Your task to perform on an android device: Add "razer blackwidow" to the cart on amazon.com, then select checkout. Image 0: 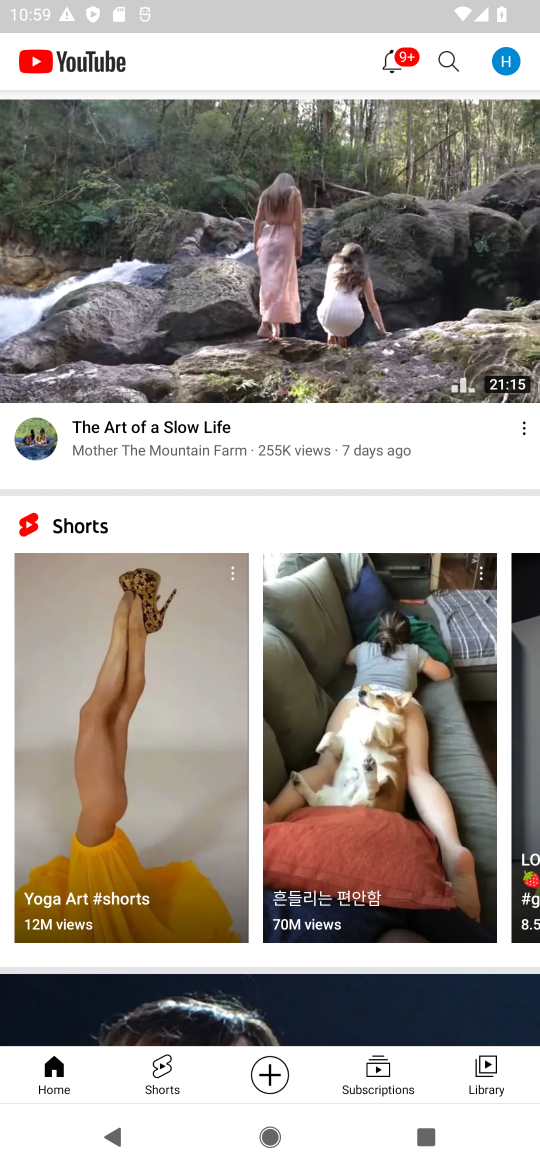
Step 0: press home button
Your task to perform on an android device: Add "razer blackwidow" to the cart on amazon.com, then select checkout. Image 1: 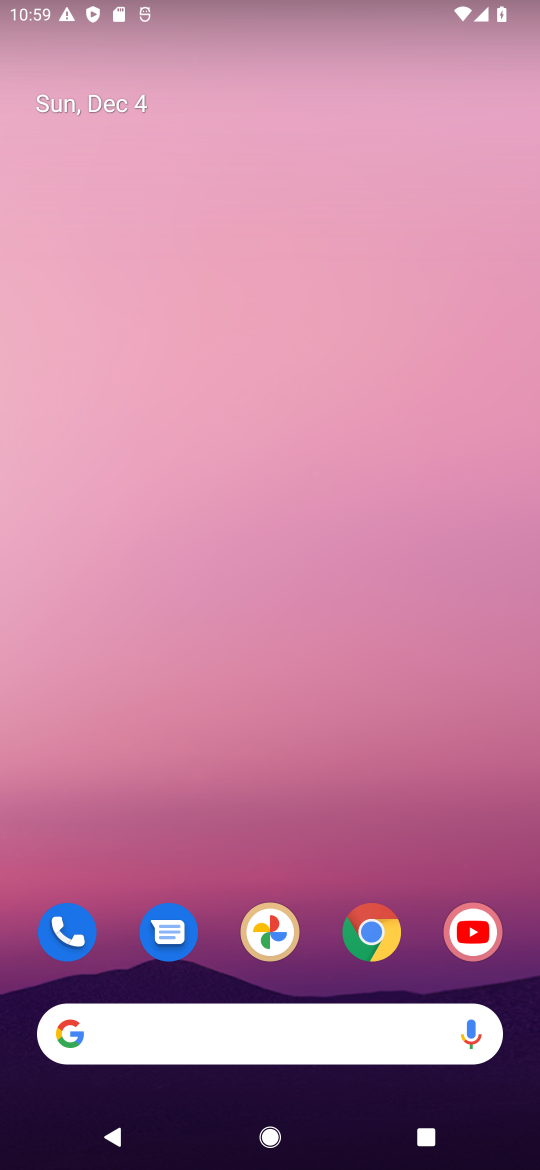
Step 1: click (361, 936)
Your task to perform on an android device: Add "razer blackwidow" to the cart on amazon.com, then select checkout. Image 2: 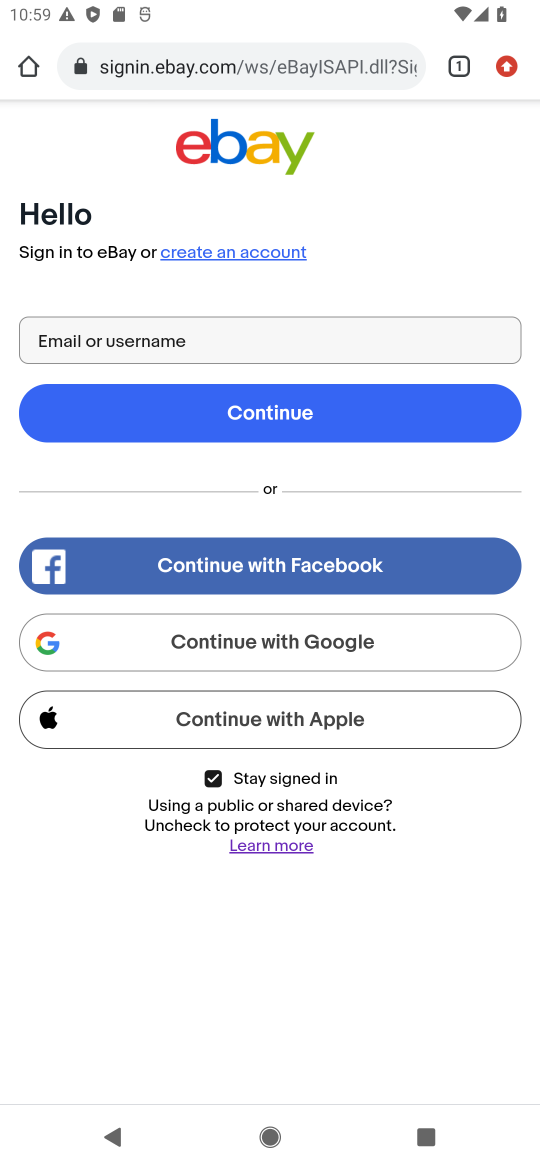
Step 2: click (165, 56)
Your task to perform on an android device: Add "razer blackwidow" to the cart on amazon.com, then select checkout. Image 3: 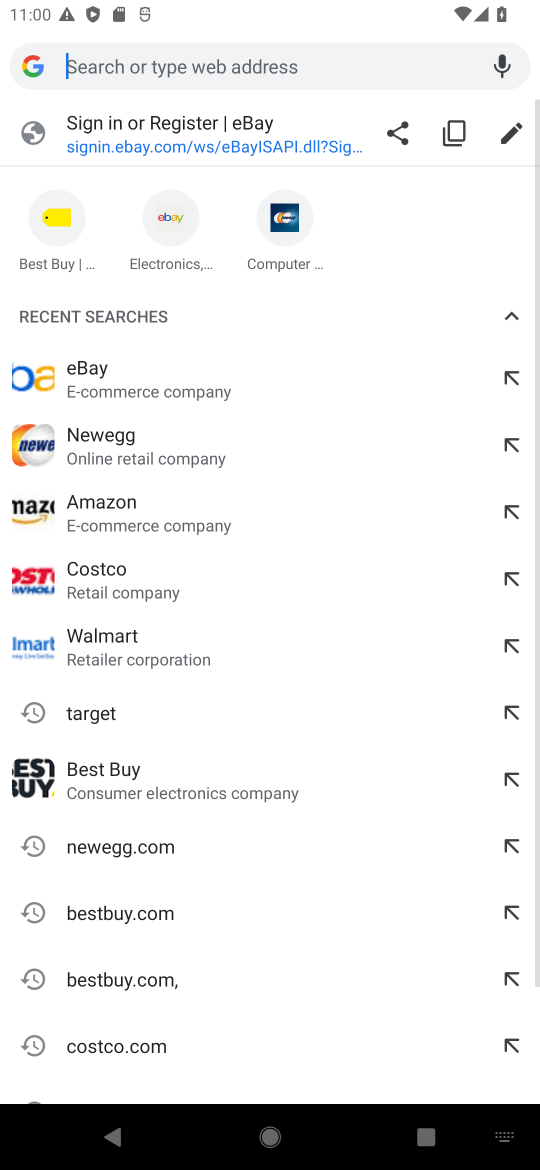
Step 3: click (148, 516)
Your task to perform on an android device: Add "razer blackwidow" to the cart on amazon.com, then select checkout. Image 4: 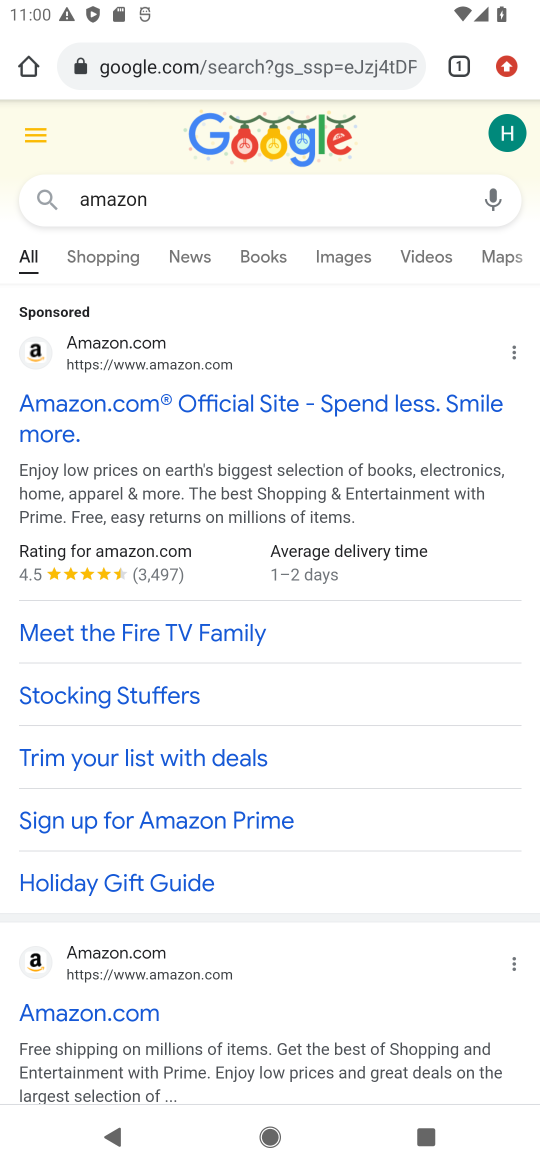
Step 4: click (182, 403)
Your task to perform on an android device: Add "razer blackwidow" to the cart on amazon.com, then select checkout. Image 5: 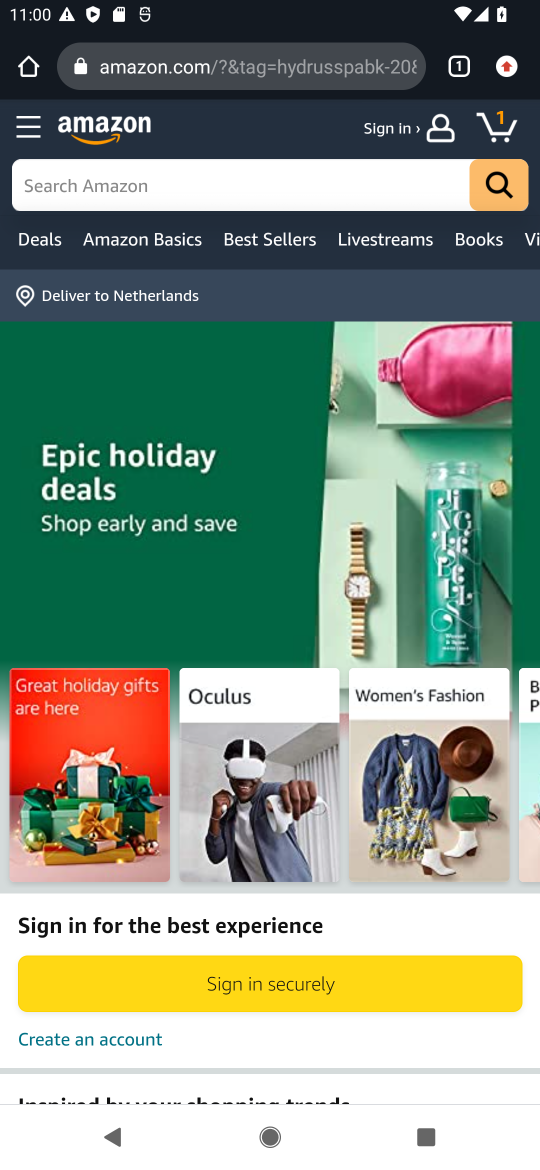
Step 5: click (315, 185)
Your task to perform on an android device: Add "razer blackwidow" to the cart on amazon.com, then select checkout. Image 6: 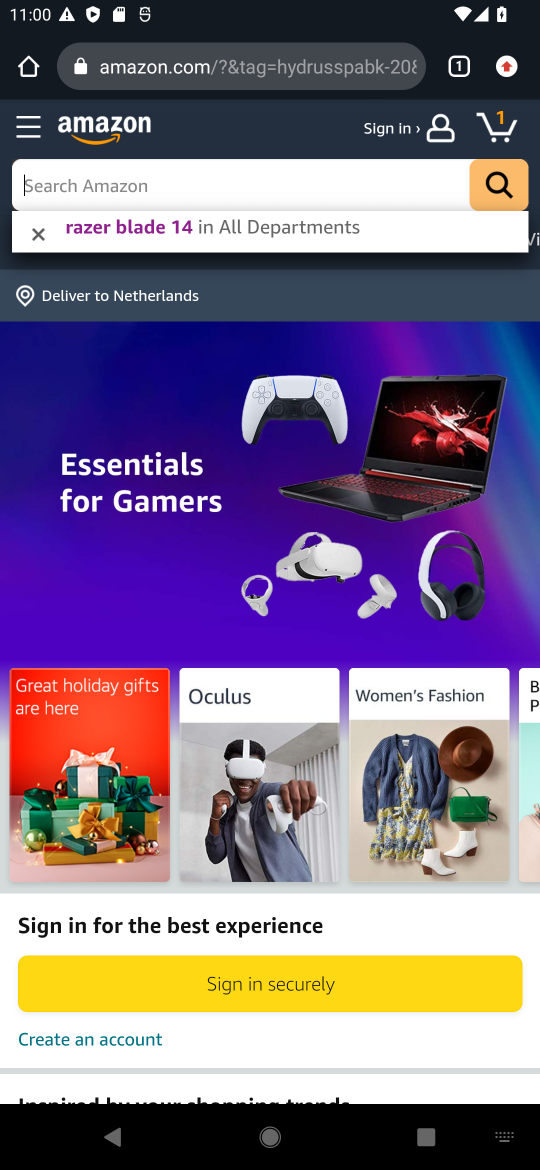
Step 6: type "razer blackwidow"
Your task to perform on an android device: Add "razer blackwidow" to the cart on amazon.com, then select checkout. Image 7: 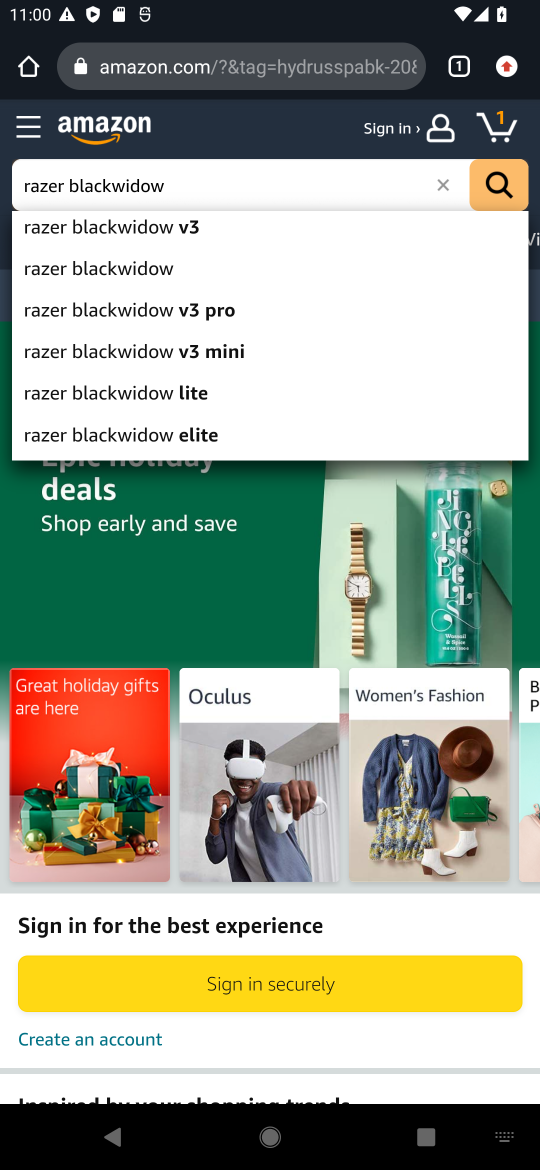
Step 7: click (197, 236)
Your task to perform on an android device: Add "razer blackwidow" to the cart on amazon.com, then select checkout. Image 8: 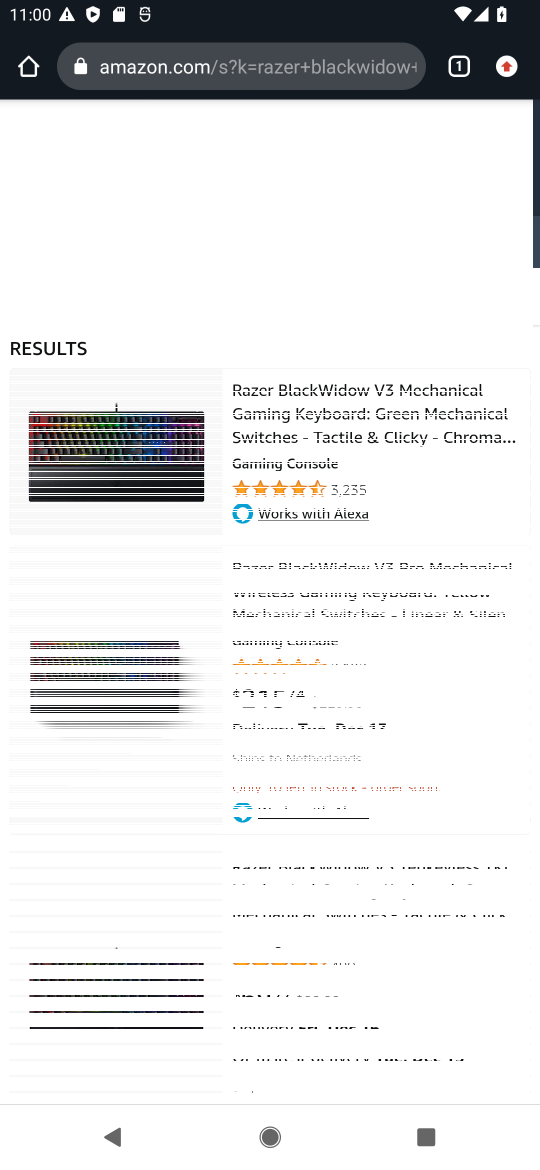
Step 8: click (142, 465)
Your task to perform on an android device: Add "razer blackwidow" to the cart on amazon.com, then select checkout. Image 9: 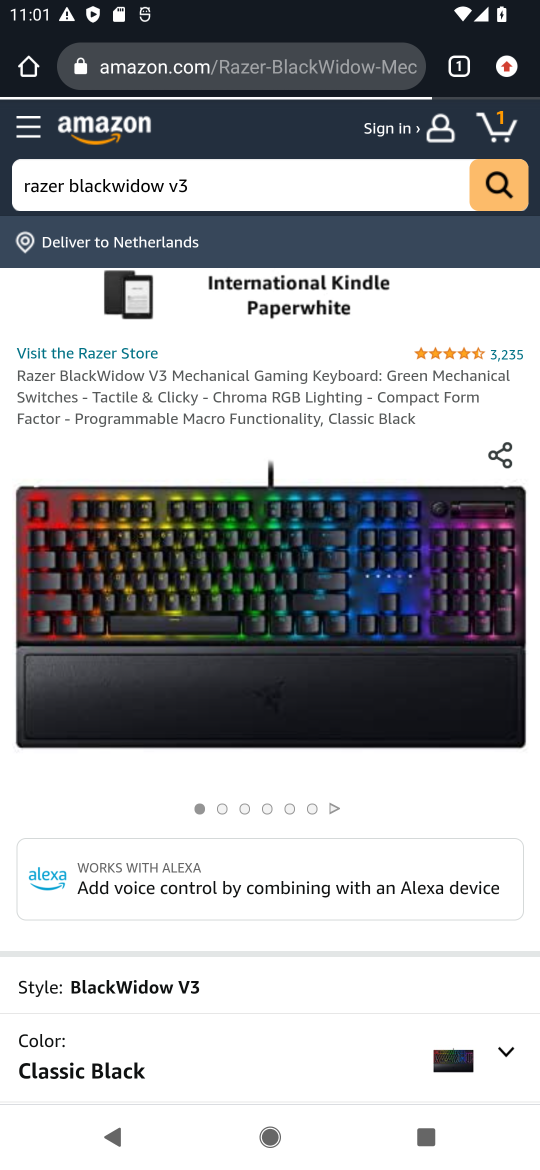
Step 9: drag from (431, 911) to (413, 142)
Your task to perform on an android device: Add "razer blackwidow" to the cart on amazon.com, then select checkout. Image 10: 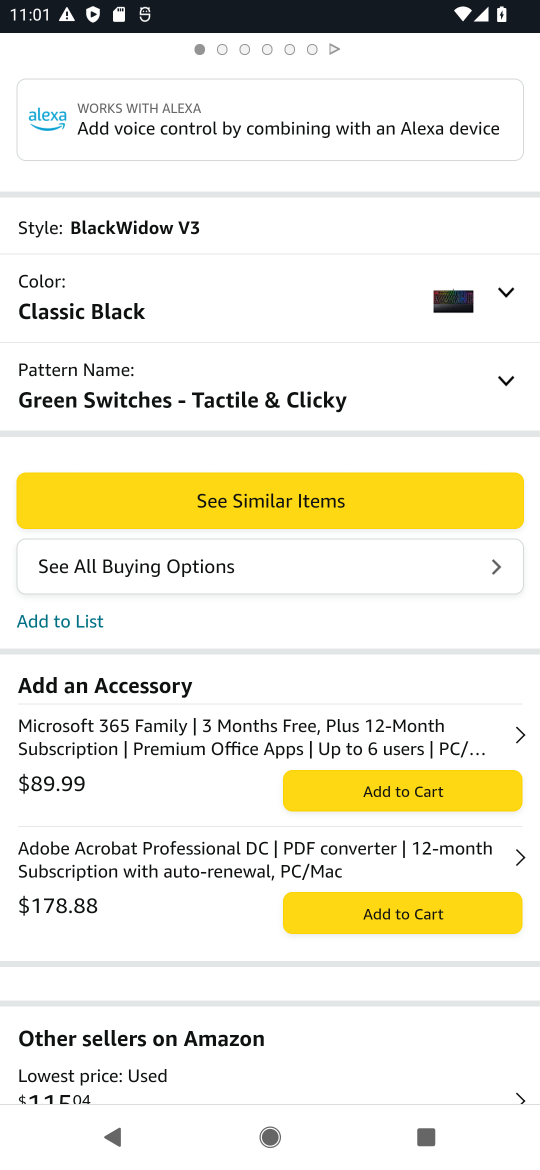
Step 10: click (364, 787)
Your task to perform on an android device: Add "razer blackwidow" to the cart on amazon.com, then select checkout. Image 11: 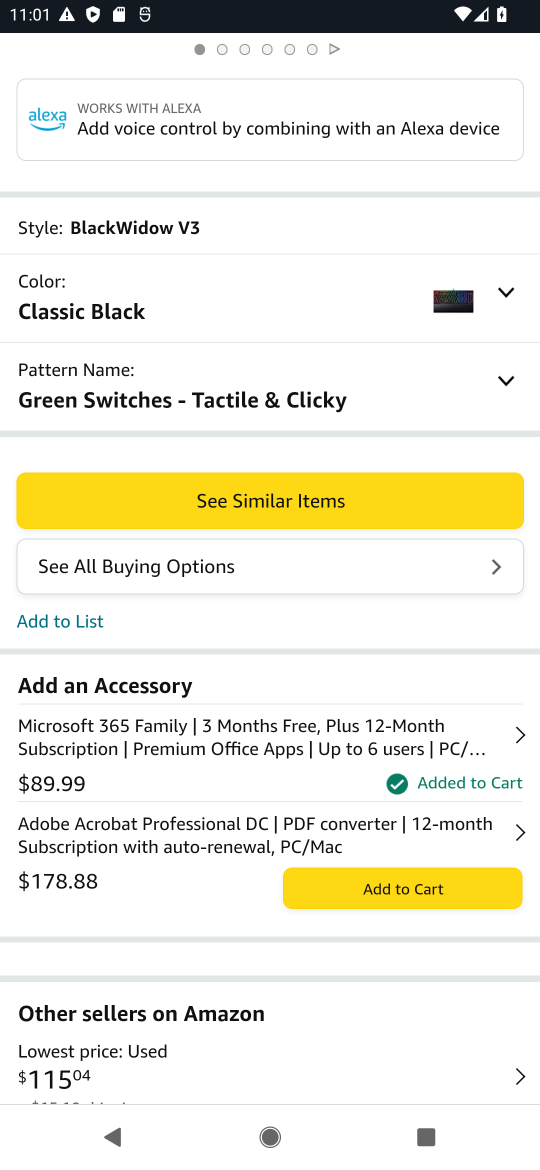
Step 11: task complete